Your task to perform on an android device: open sync settings in chrome Image 0: 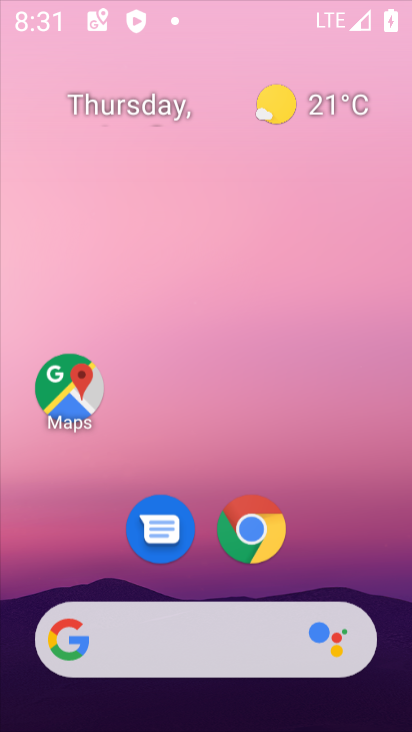
Step 0: click (220, 653)
Your task to perform on an android device: open sync settings in chrome Image 1: 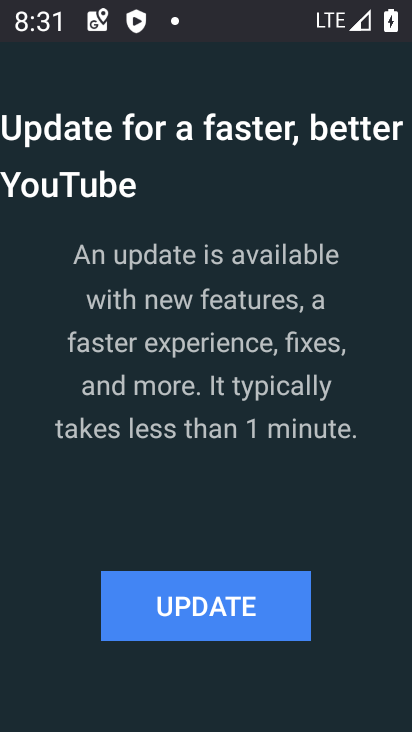
Step 1: press home button
Your task to perform on an android device: open sync settings in chrome Image 2: 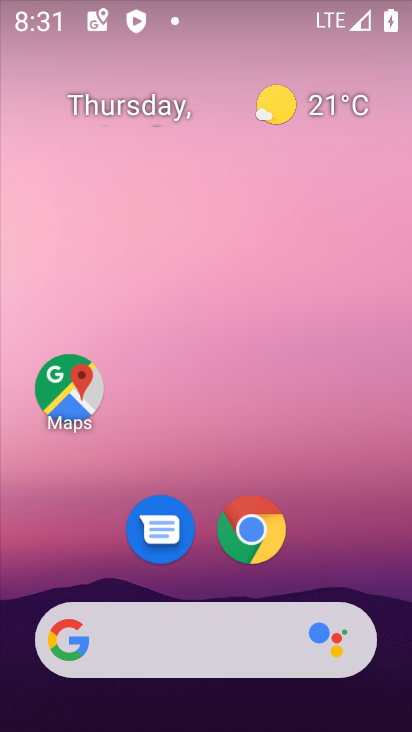
Step 2: click (262, 530)
Your task to perform on an android device: open sync settings in chrome Image 3: 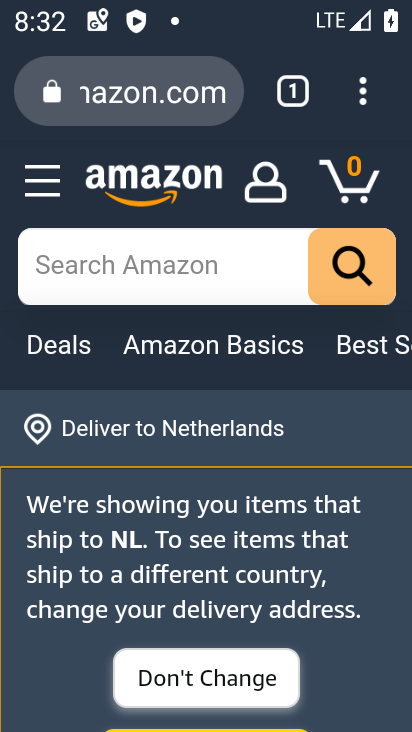
Step 3: click (368, 93)
Your task to perform on an android device: open sync settings in chrome Image 4: 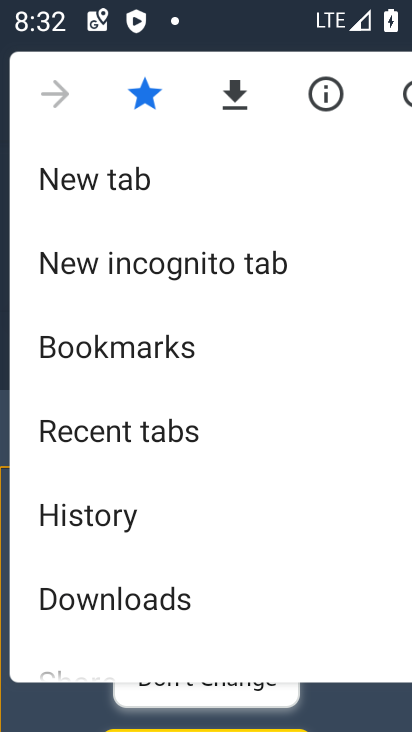
Step 4: drag from (262, 633) to (281, 221)
Your task to perform on an android device: open sync settings in chrome Image 5: 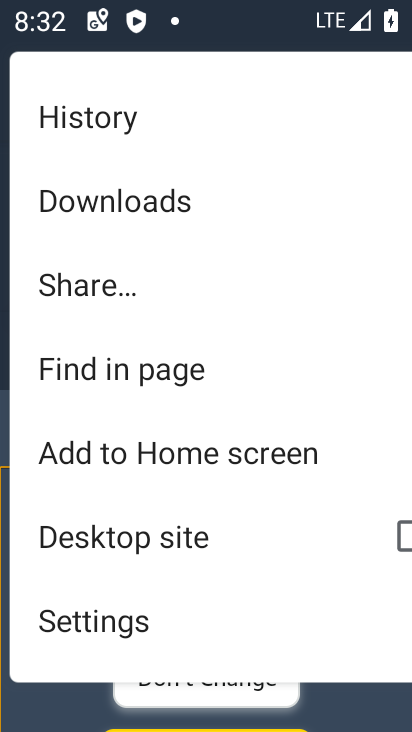
Step 5: click (89, 611)
Your task to perform on an android device: open sync settings in chrome Image 6: 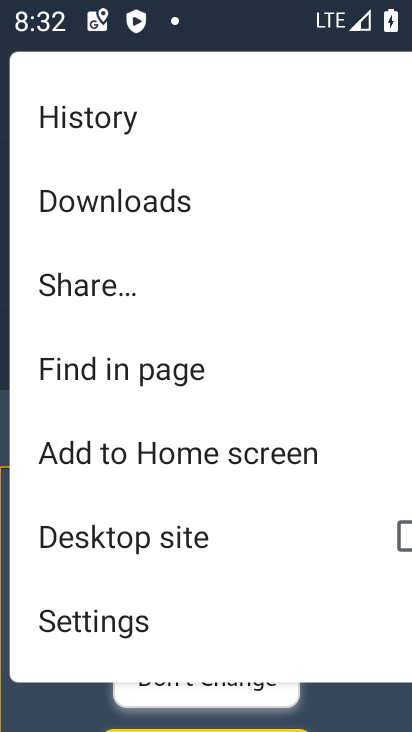
Step 6: click (89, 611)
Your task to perform on an android device: open sync settings in chrome Image 7: 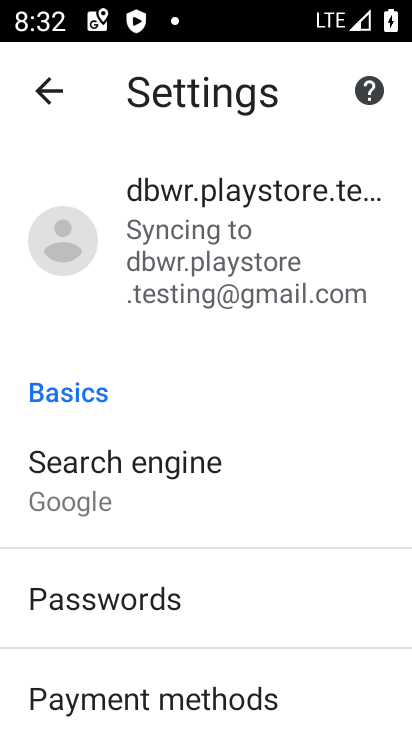
Step 7: click (305, 217)
Your task to perform on an android device: open sync settings in chrome Image 8: 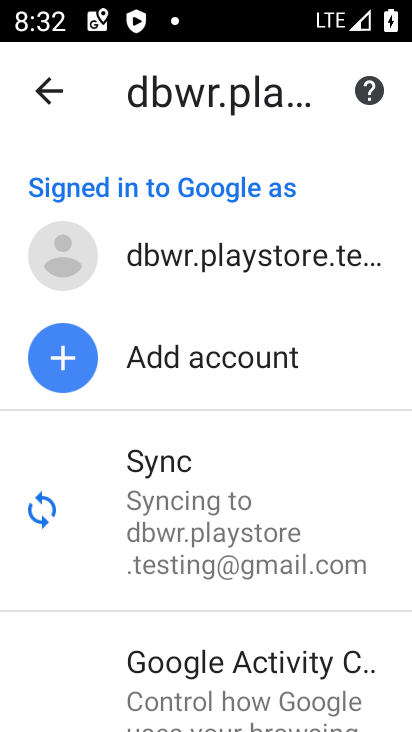
Step 8: task complete